Your task to perform on an android device: toggle pop-ups in chrome Image 0: 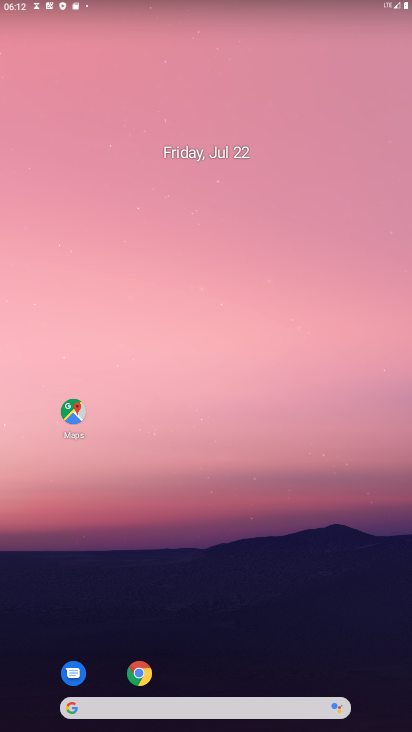
Step 0: press home button
Your task to perform on an android device: toggle pop-ups in chrome Image 1: 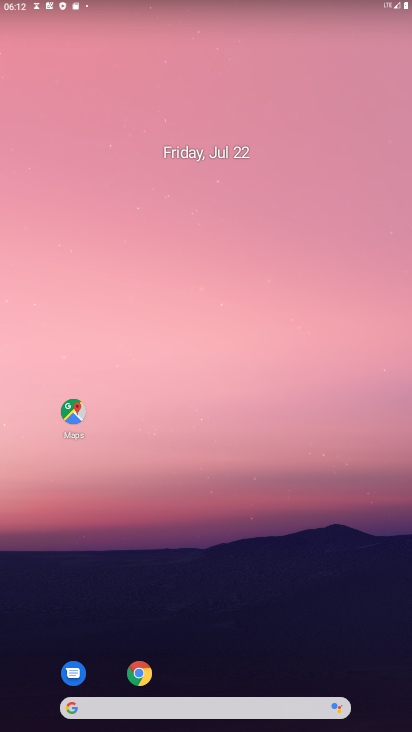
Step 1: drag from (259, 648) to (237, 86)
Your task to perform on an android device: toggle pop-ups in chrome Image 2: 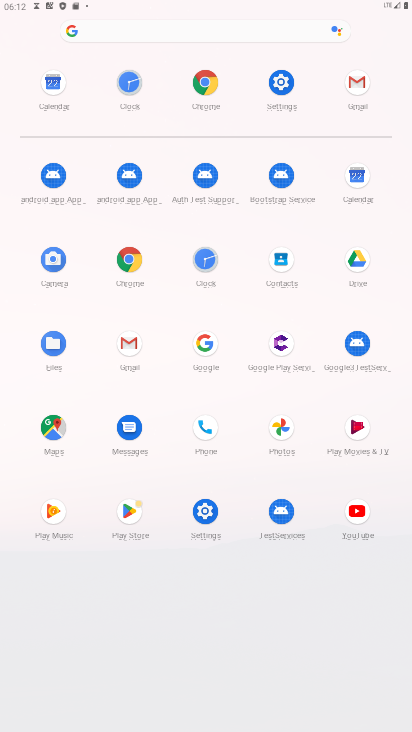
Step 2: click (202, 79)
Your task to perform on an android device: toggle pop-ups in chrome Image 3: 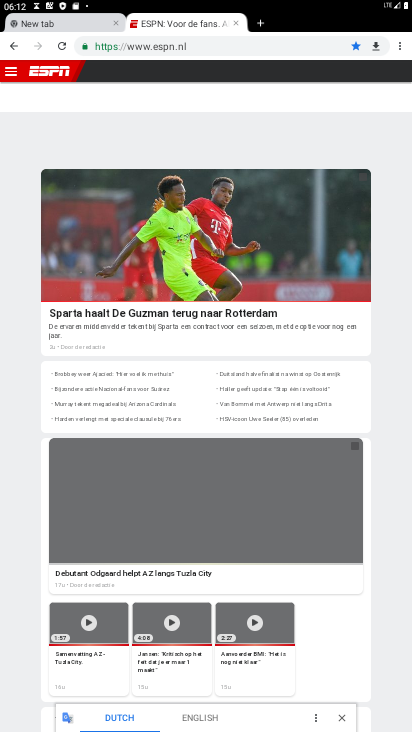
Step 3: drag from (402, 54) to (311, 308)
Your task to perform on an android device: toggle pop-ups in chrome Image 4: 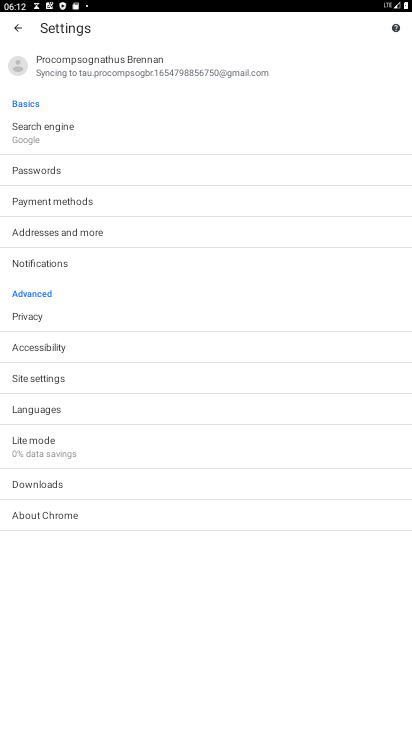
Step 4: click (39, 376)
Your task to perform on an android device: toggle pop-ups in chrome Image 5: 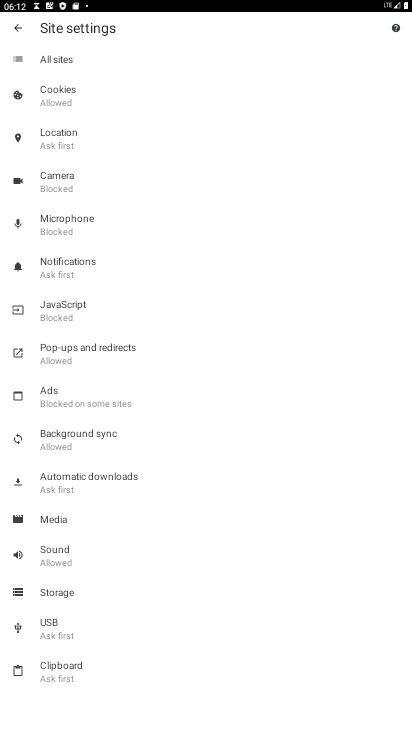
Step 5: click (57, 351)
Your task to perform on an android device: toggle pop-ups in chrome Image 6: 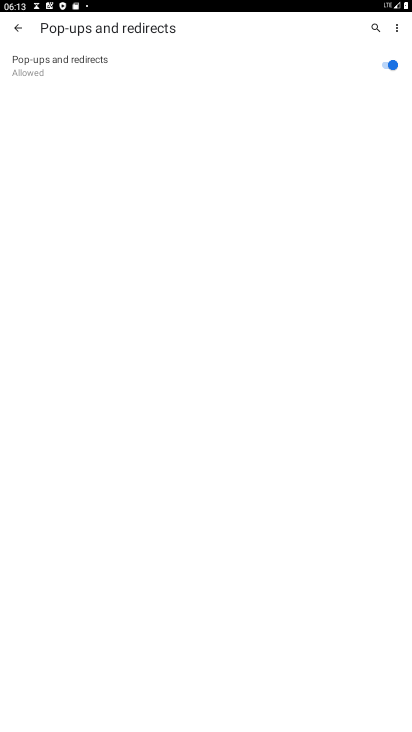
Step 6: click (389, 60)
Your task to perform on an android device: toggle pop-ups in chrome Image 7: 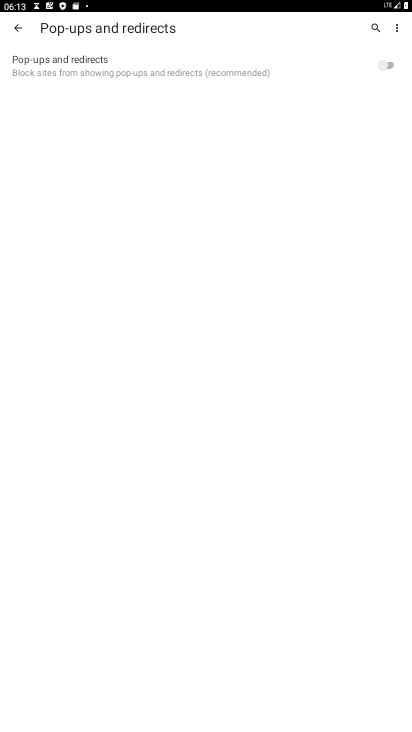
Step 7: task complete